Your task to perform on an android device: Find coffee shops on Maps Image 0: 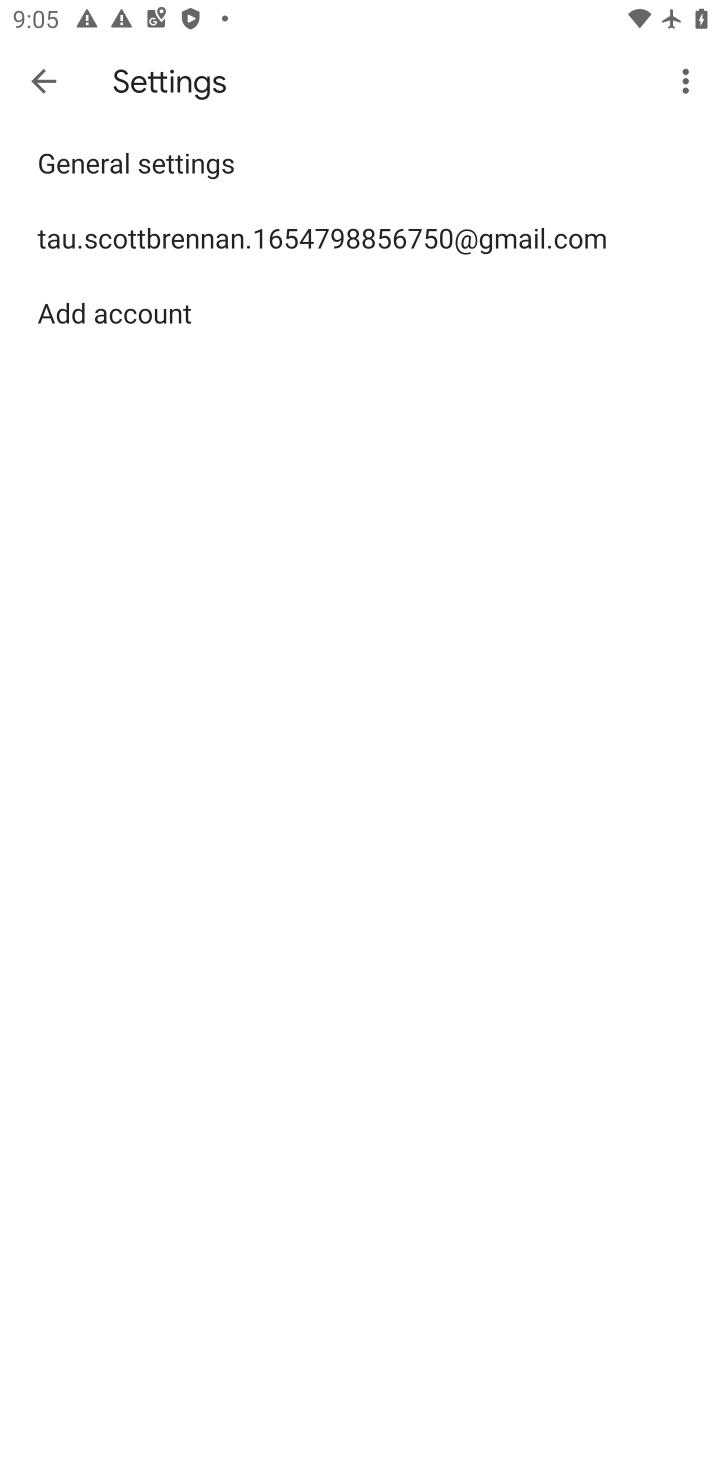
Step 0: press home button
Your task to perform on an android device: Find coffee shops on Maps Image 1: 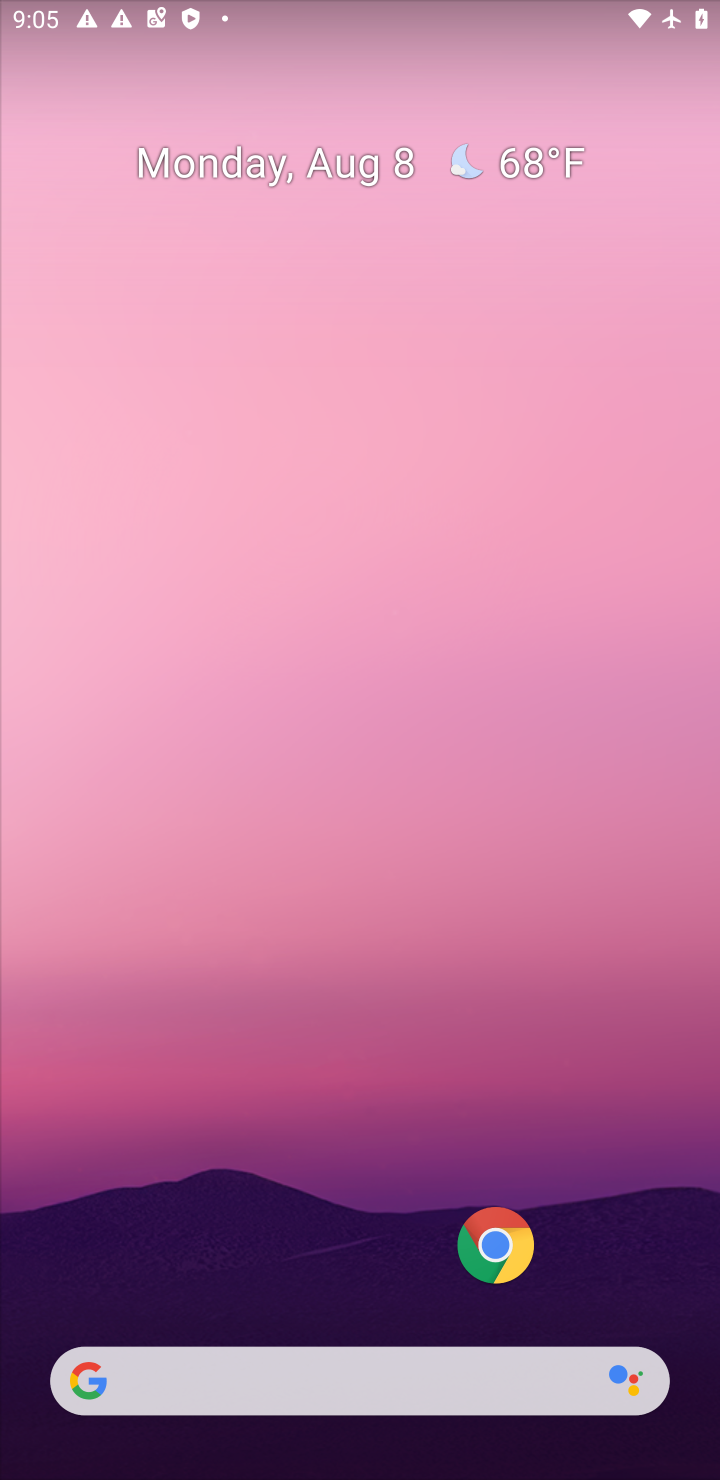
Step 1: drag from (258, 747) to (300, 47)
Your task to perform on an android device: Find coffee shops on Maps Image 2: 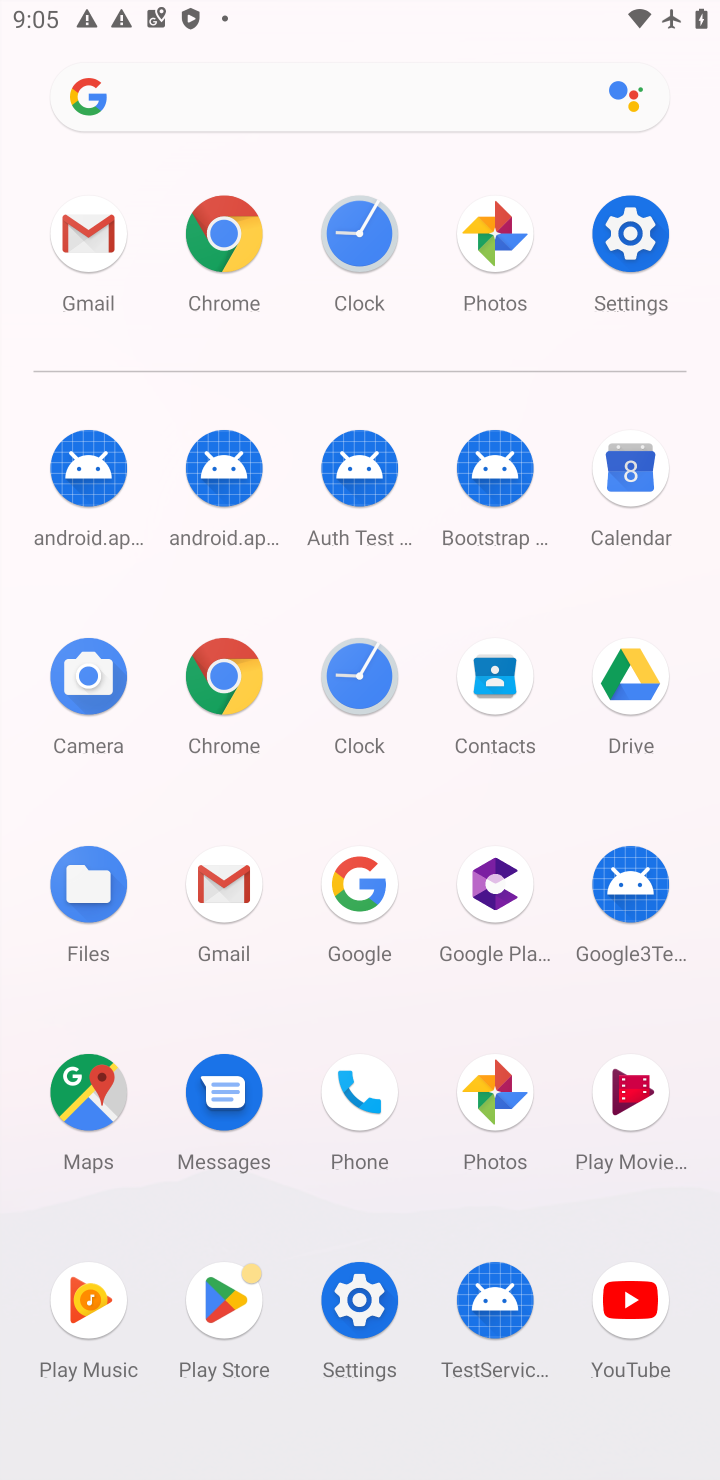
Step 2: click (74, 1115)
Your task to perform on an android device: Find coffee shops on Maps Image 3: 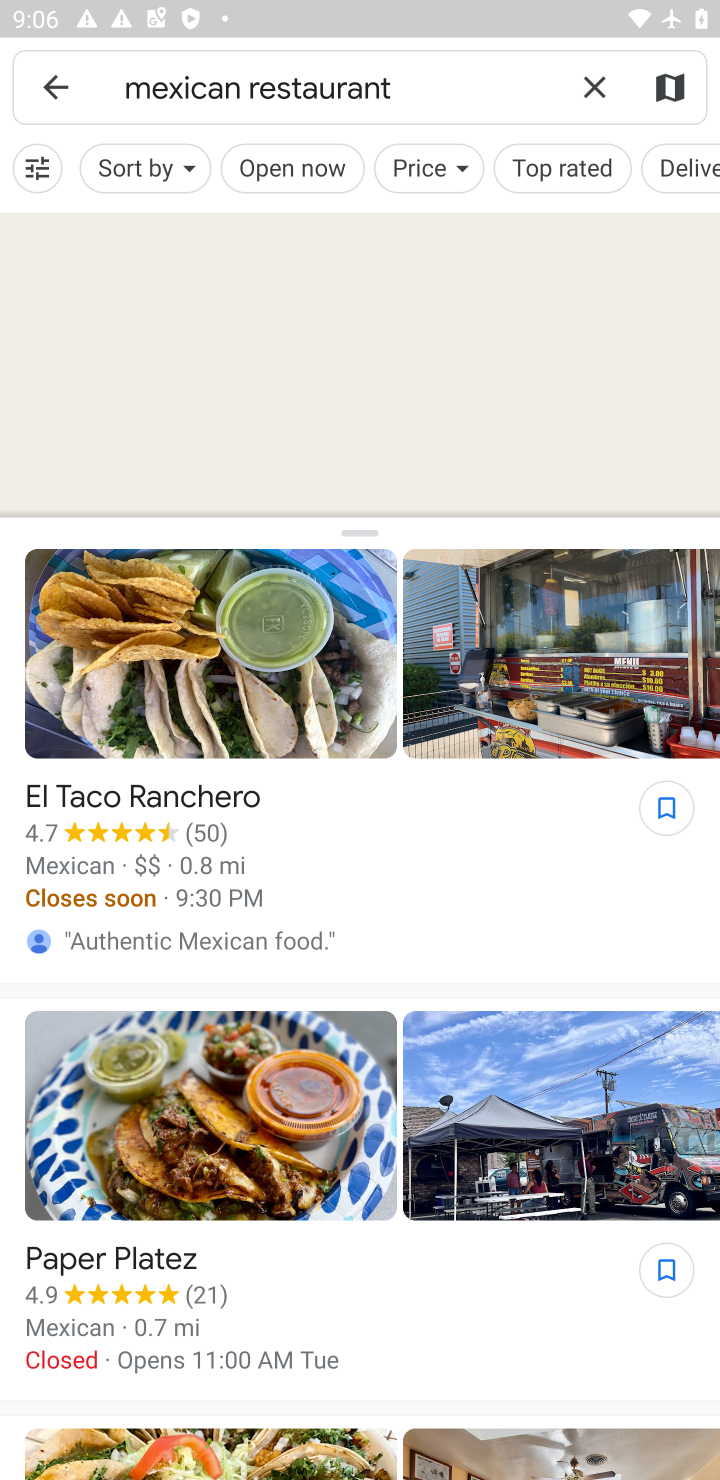
Step 3: click (582, 75)
Your task to perform on an android device: Find coffee shops on Maps Image 4: 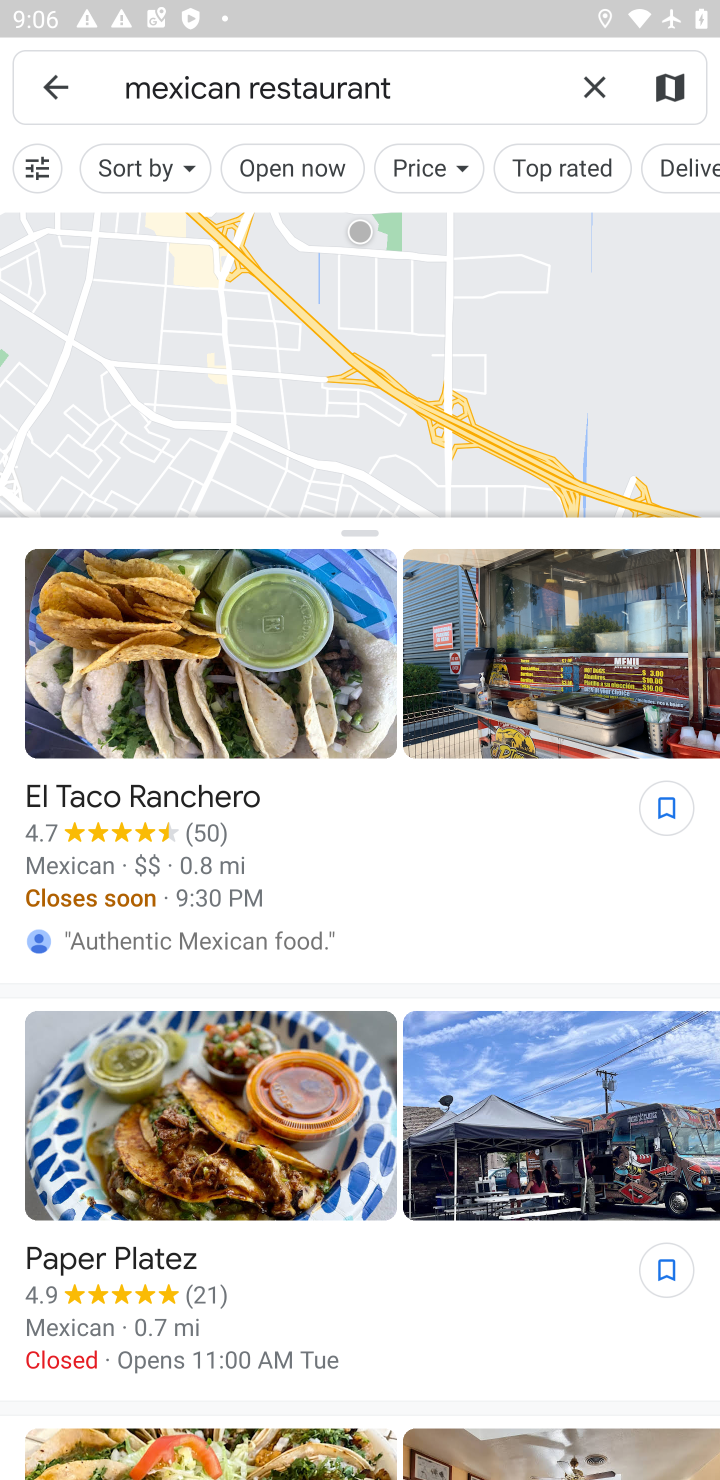
Step 4: type "coffee shops"
Your task to perform on an android device: Find coffee shops on Maps Image 5: 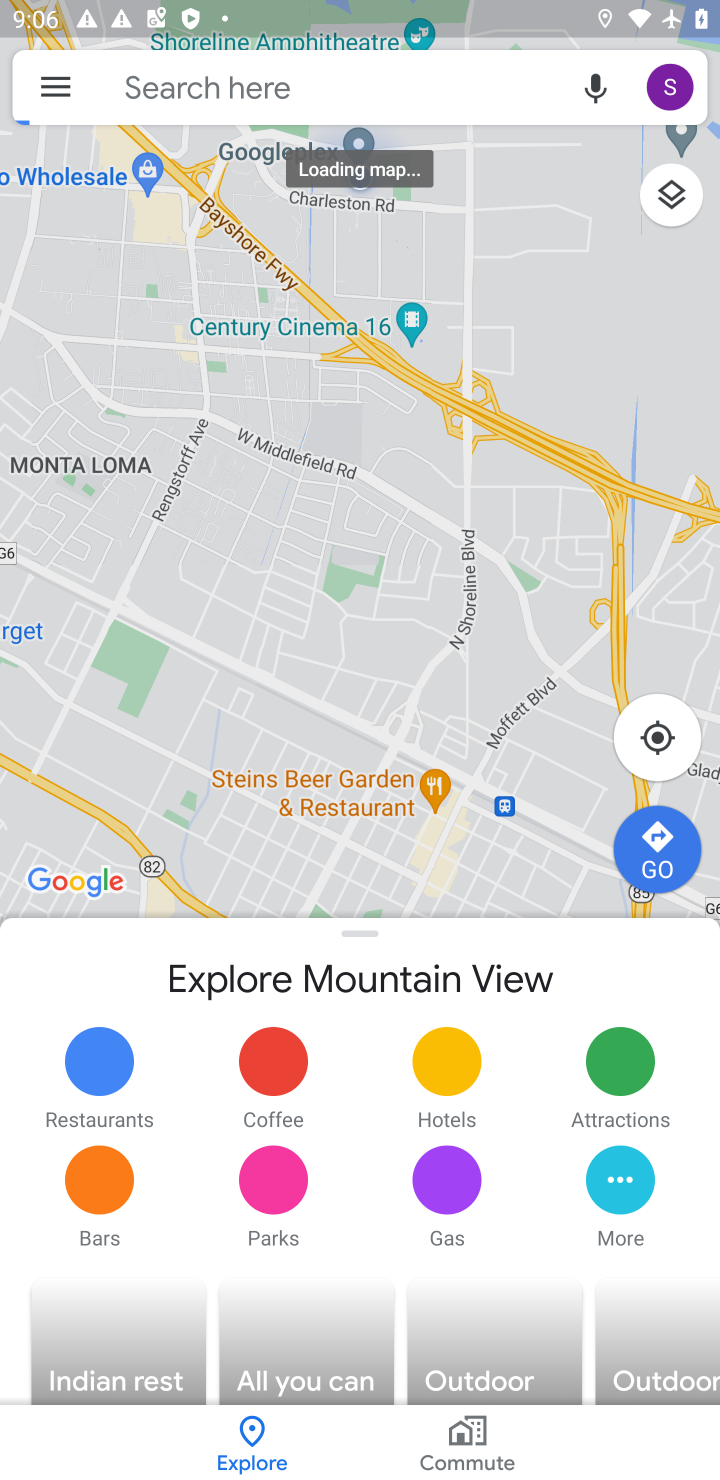
Step 5: click (266, 98)
Your task to perform on an android device: Find coffee shops on Maps Image 6: 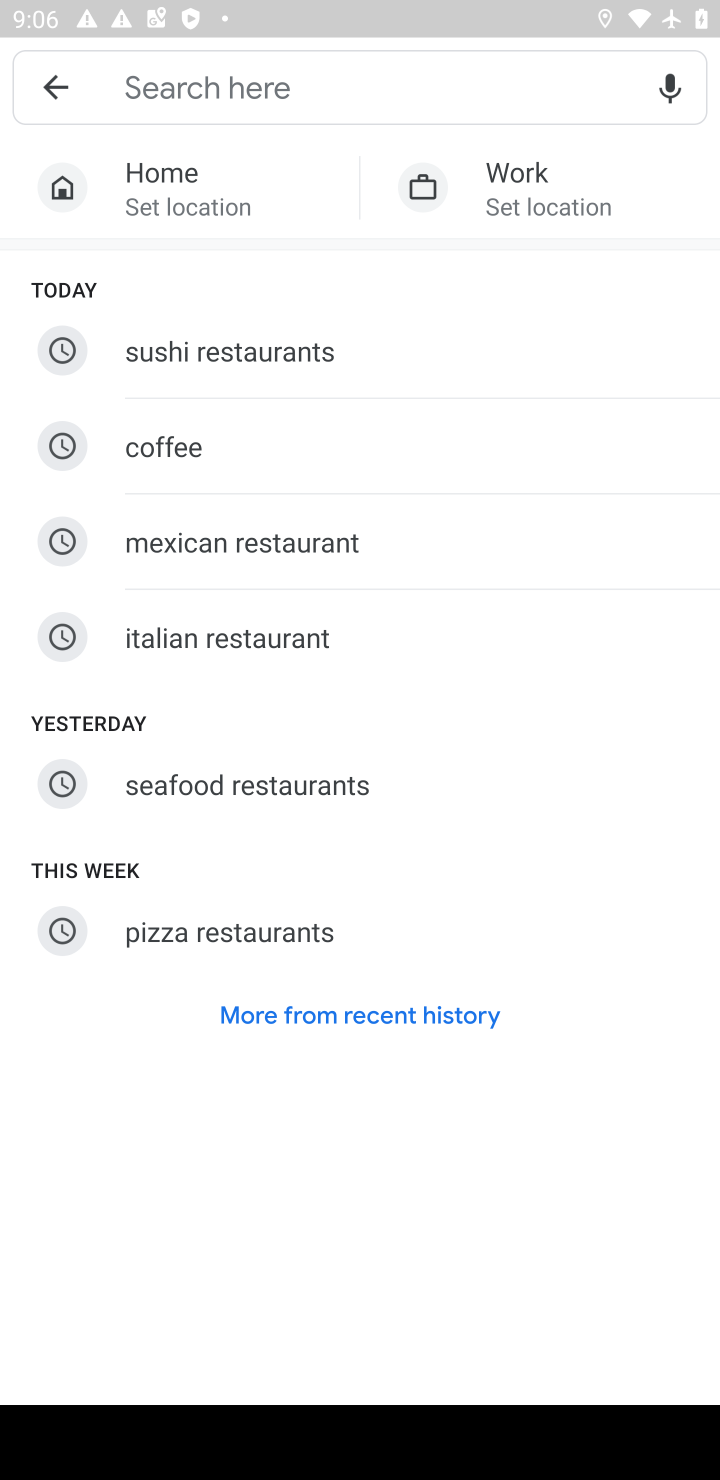
Step 6: type "coffee shops"
Your task to perform on an android device: Find coffee shops on Maps Image 7: 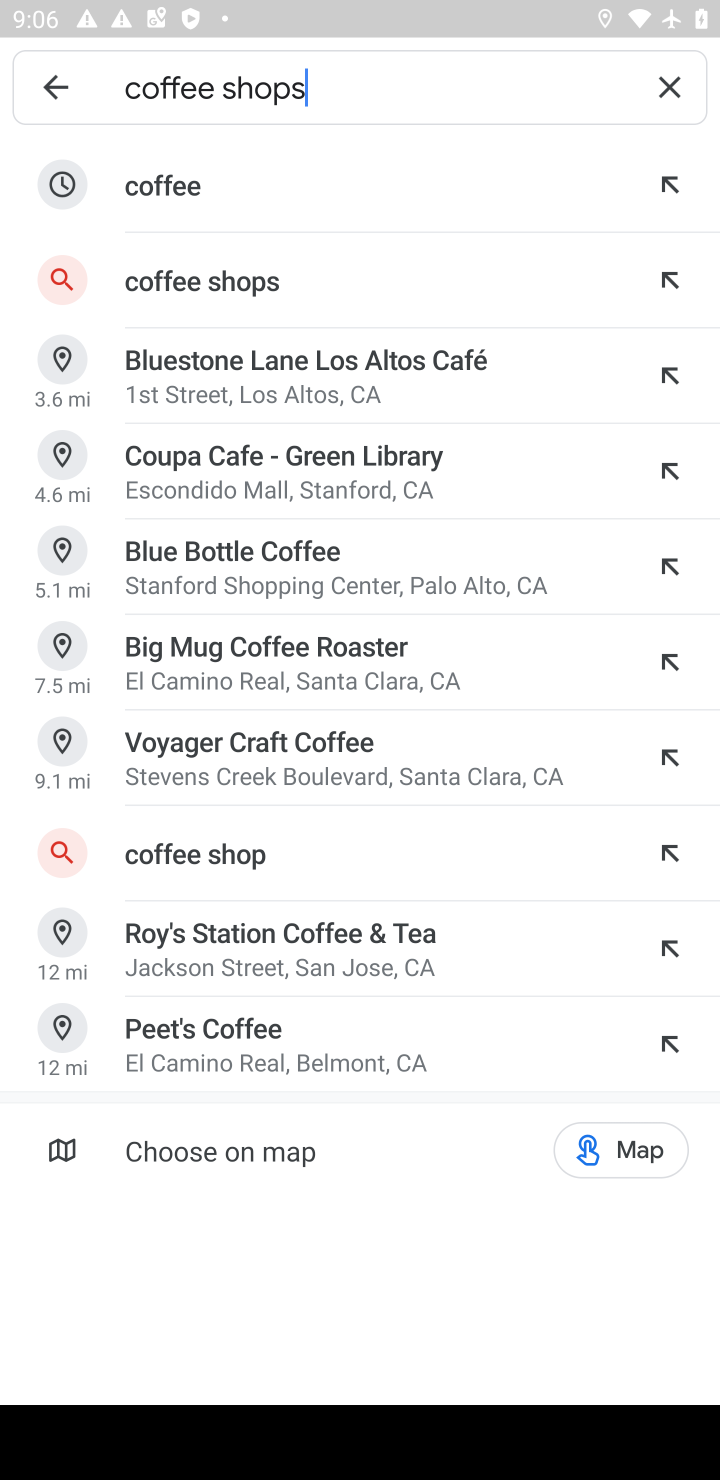
Step 7: click (242, 266)
Your task to perform on an android device: Find coffee shops on Maps Image 8: 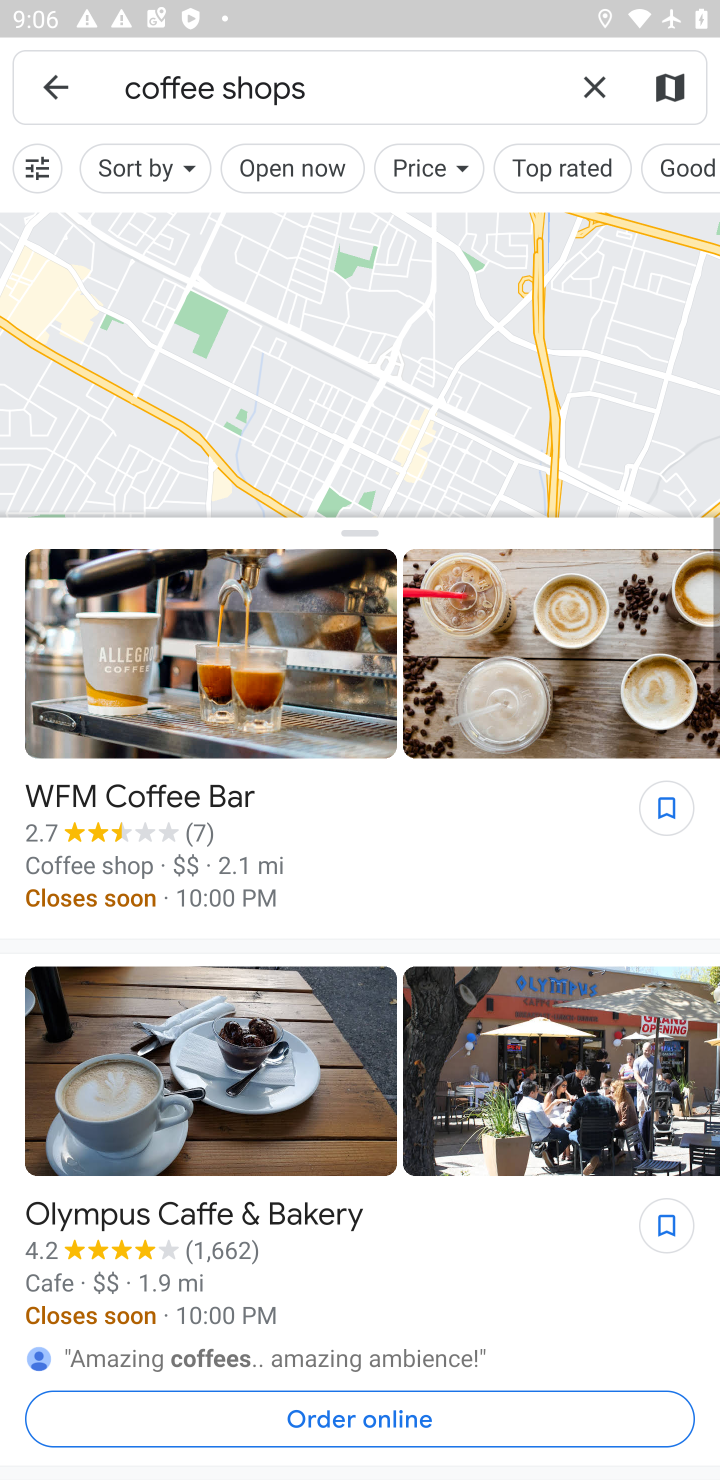
Step 8: task complete